Your task to perform on an android device: Open the music app Image 0: 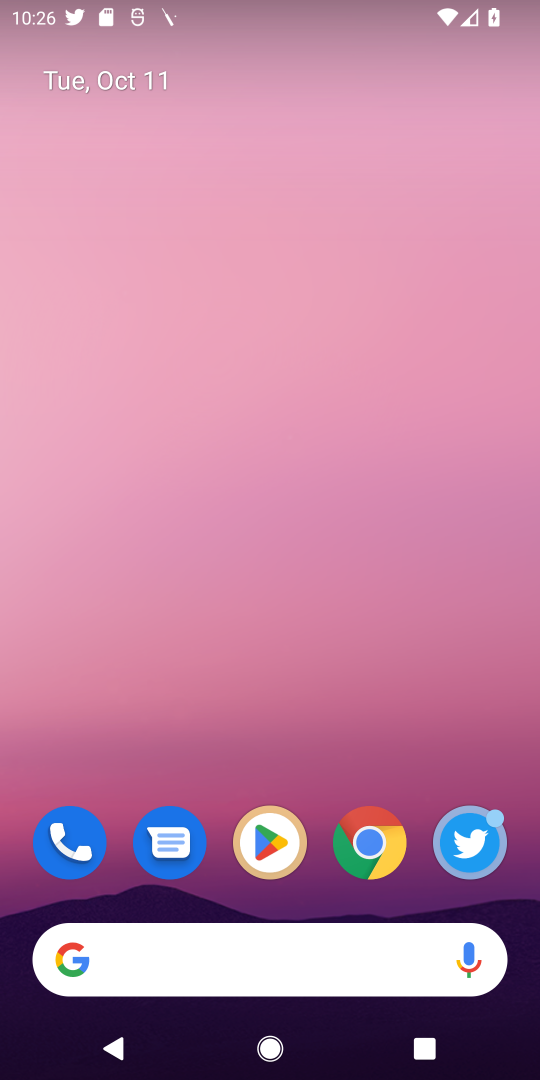
Step 0: click (362, 844)
Your task to perform on an android device: Open the music app Image 1: 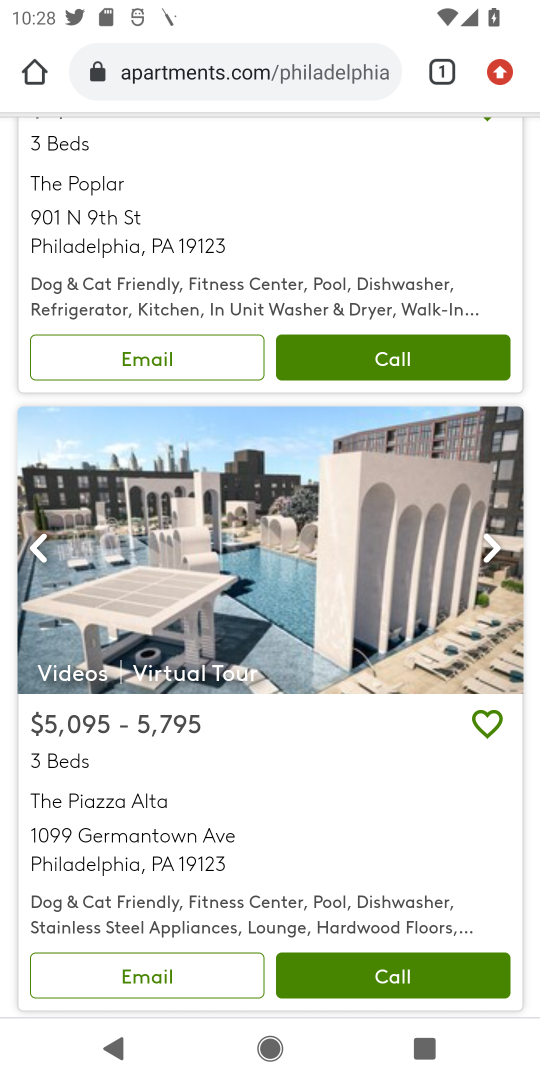
Step 1: drag from (328, 772) to (332, 394)
Your task to perform on an android device: Open the music app Image 2: 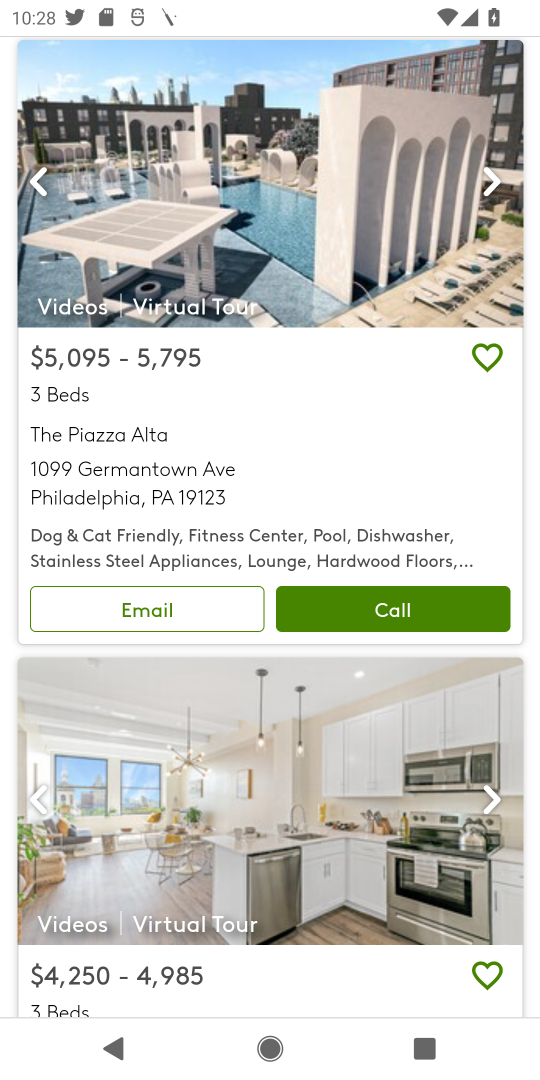
Step 2: drag from (273, 267) to (265, 982)
Your task to perform on an android device: Open the music app Image 3: 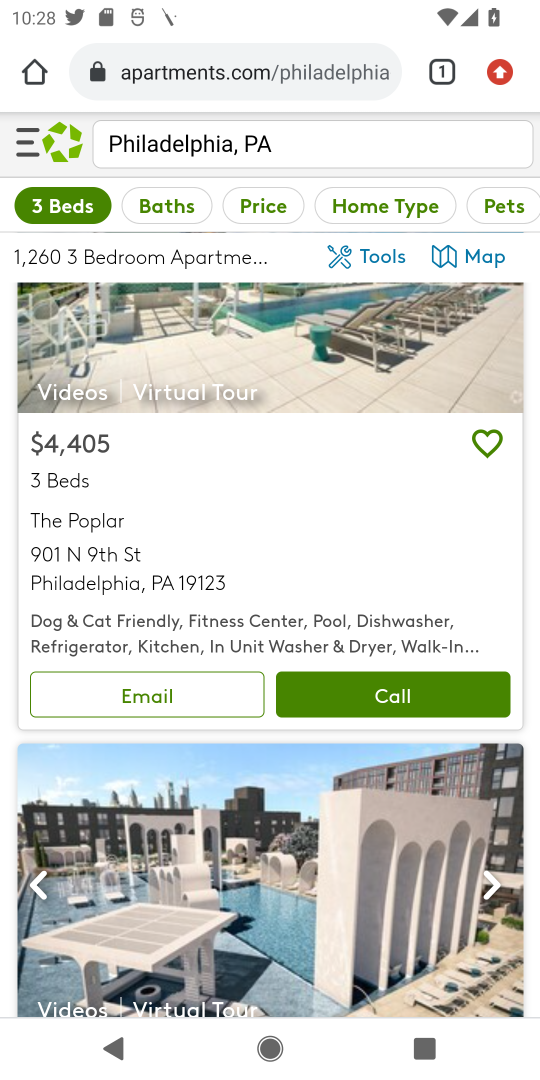
Step 3: press home button
Your task to perform on an android device: Open the music app Image 4: 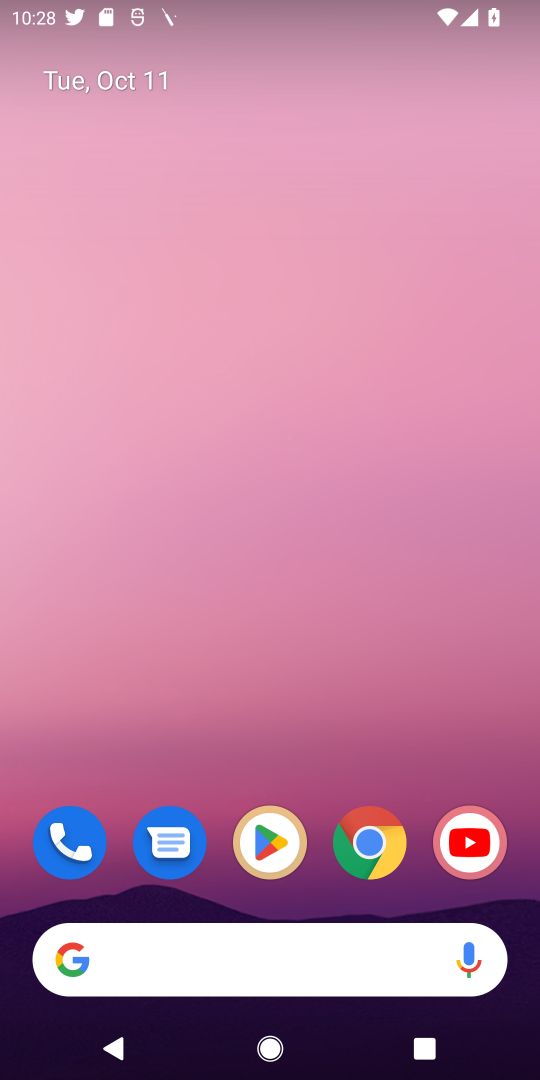
Step 4: drag from (311, 722) to (329, 235)
Your task to perform on an android device: Open the music app Image 5: 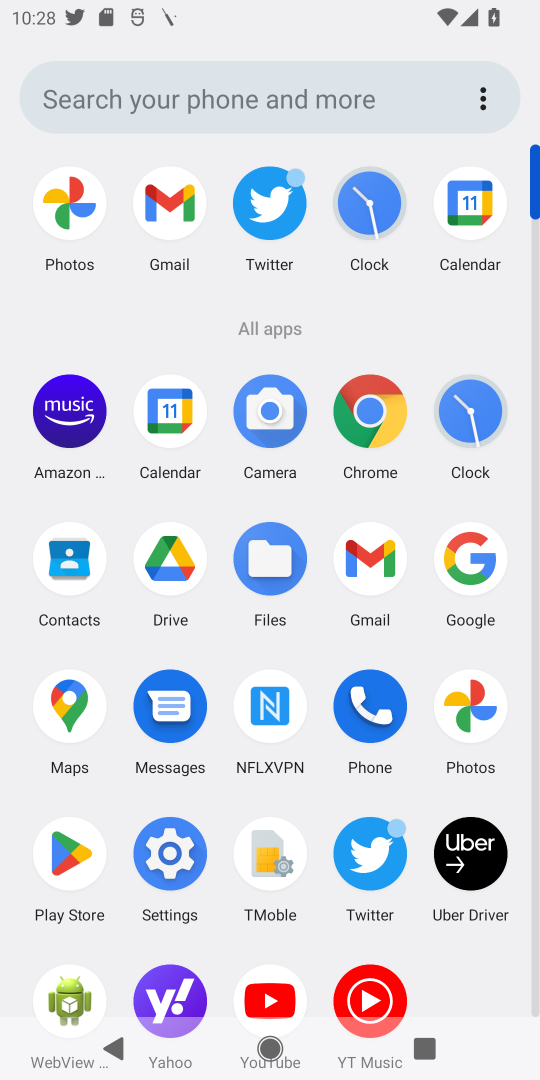
Step 5: drag from (209, 785) to (268, 326)
Your task to perform on an android device: Open the music app Image 6: 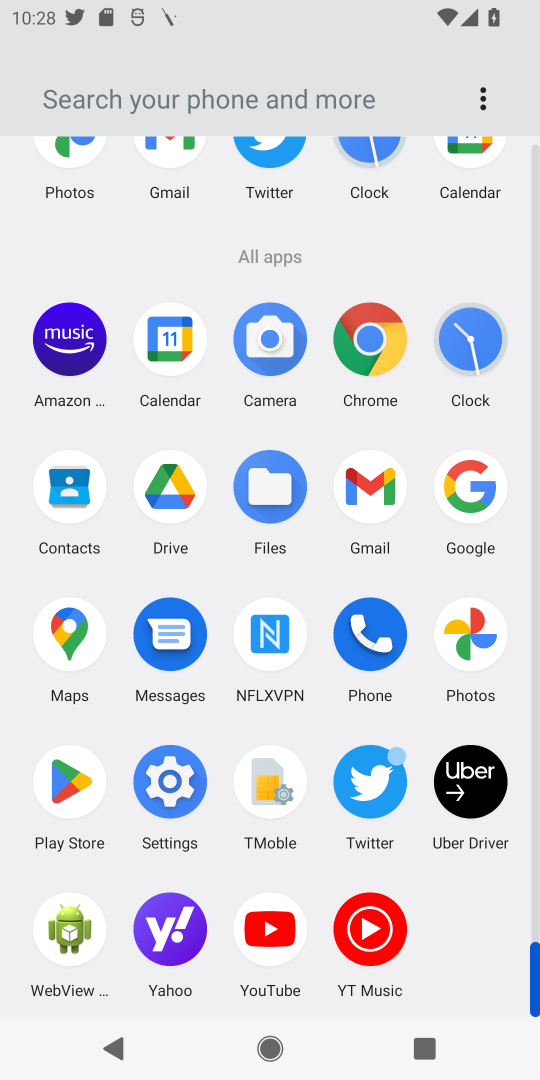
Step 6: click (69, 792)
Your task to perform on an android device: Open the music app Image 7: 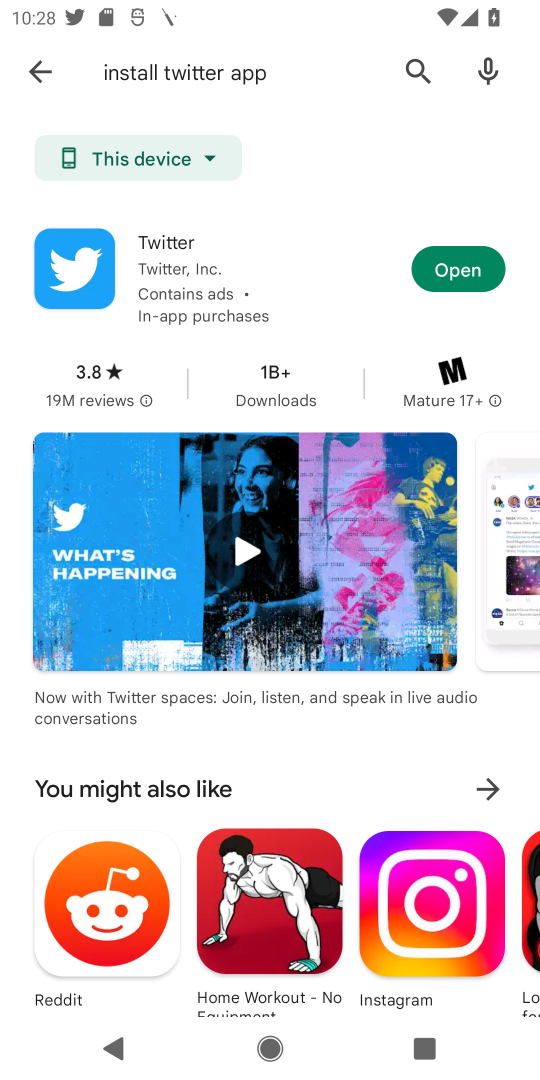
Step 7: click (243, 61)
Your task to perform on an android device: Open the music app Image 8: 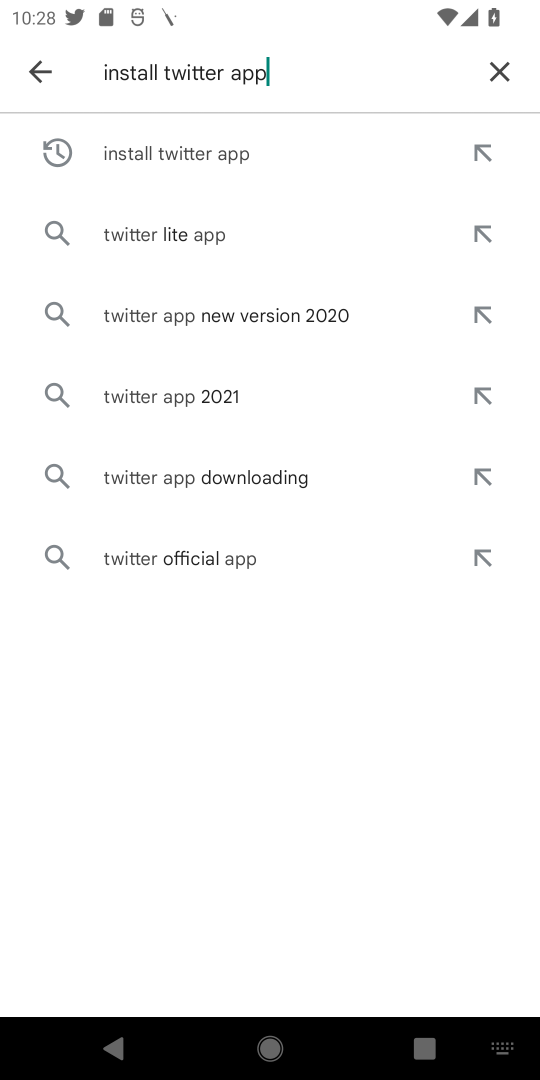
Step 8: click (501, 63)
Your task to perform on an android device: Open the music app Image 9: 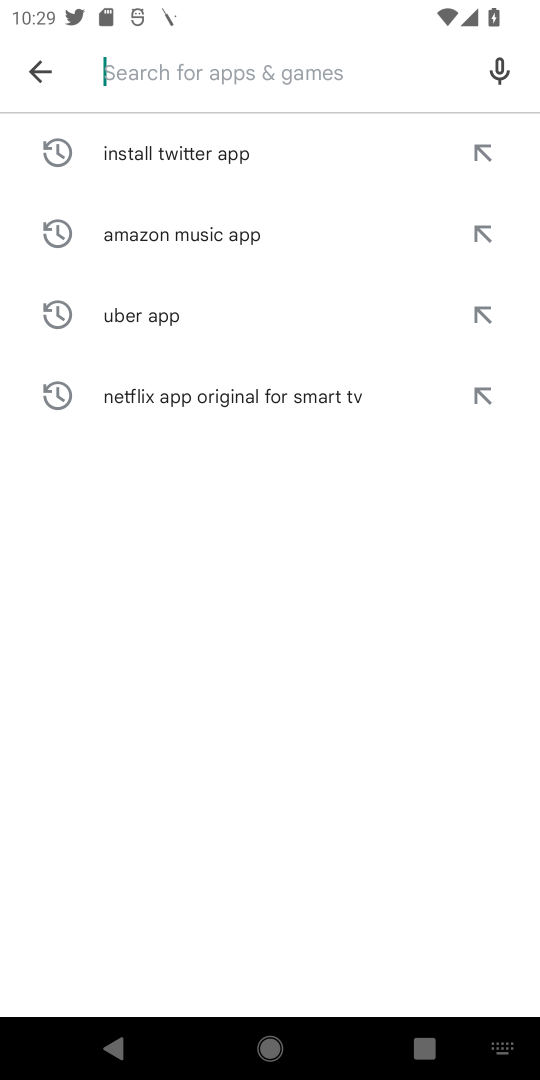
Step 9: type "music app"
Your task to perform on an android device: Open the music app Image 10: 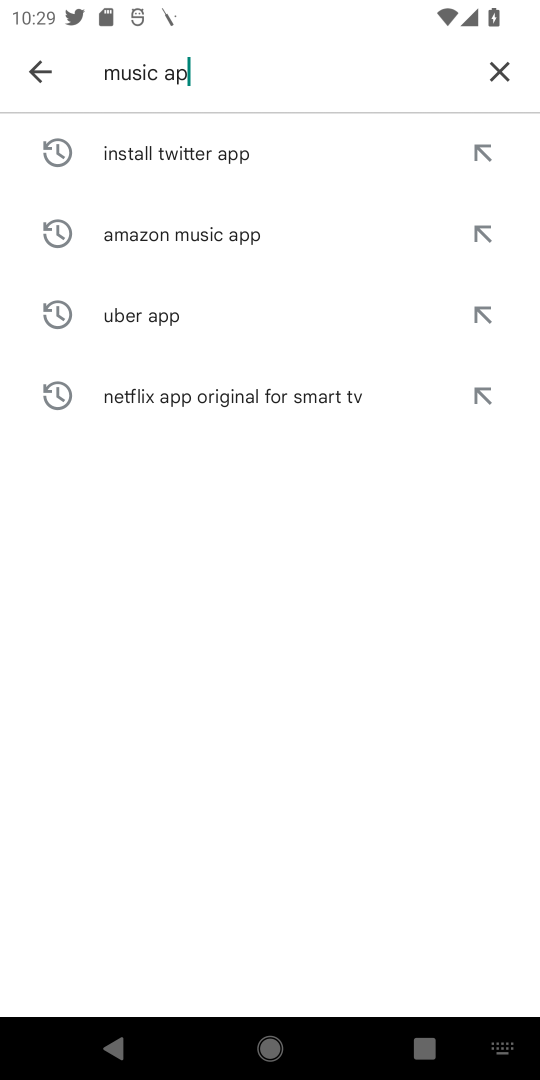
Step 10: type ""
Your task to perform on an android device: Open the music app Image 11: 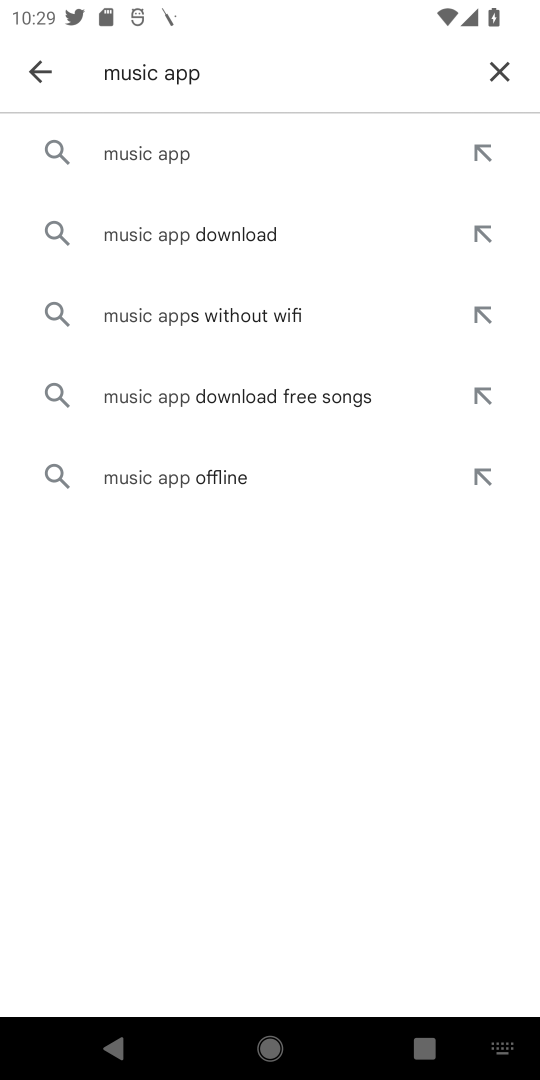
Step 11: click (168, 151)
Your task to perform on an android device: Open the music app Image 12: 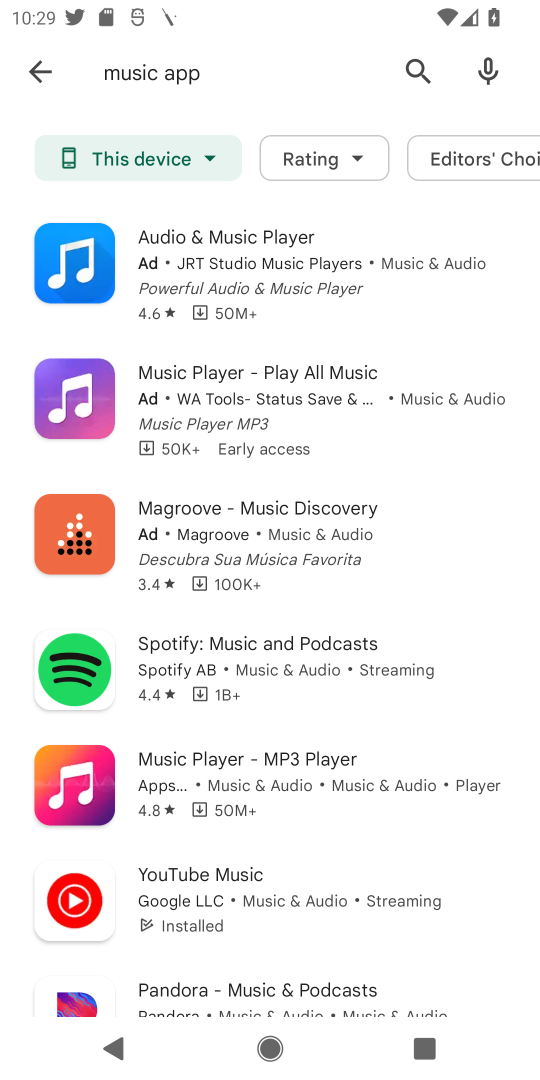
Step 12: click (173, 430)
Your task to perform on an android device: Open the music app Image 13: 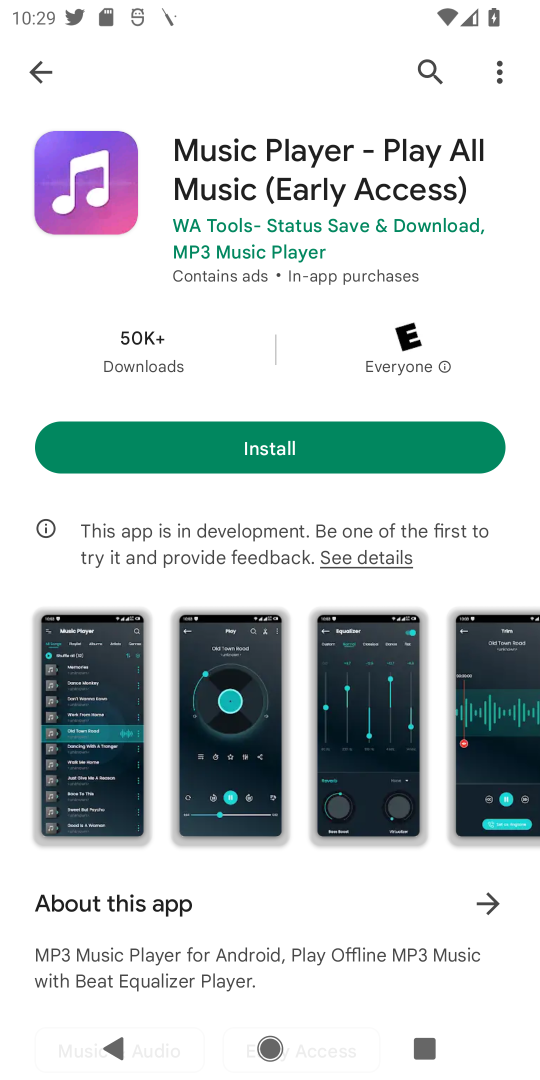
Step 13: click (292, 451)
Your task to perform on an android device: Open the music app Image 14: 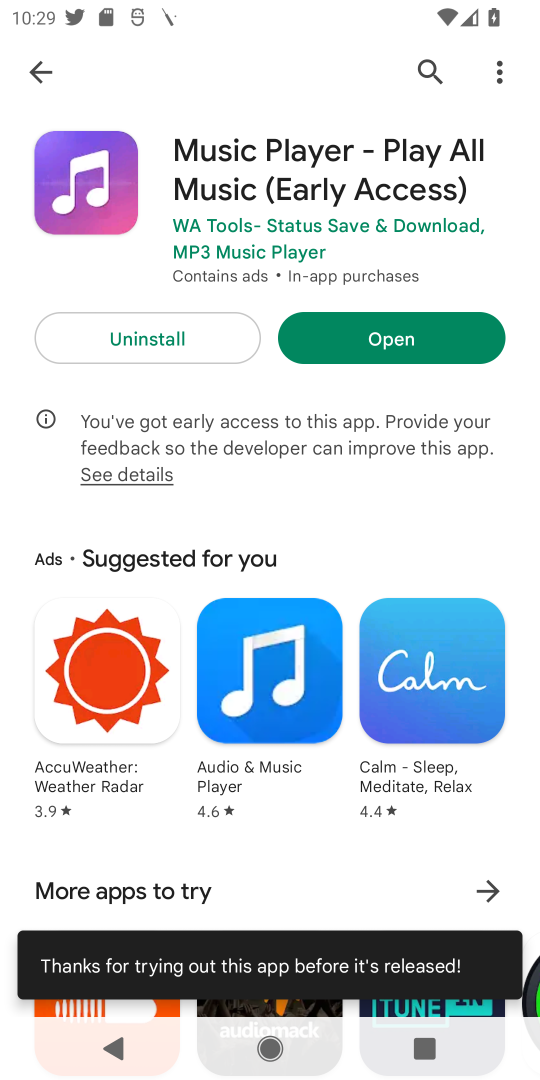
Step 14: click (370, 349)
Your task to perform on an android device: Open the music app Image 15: 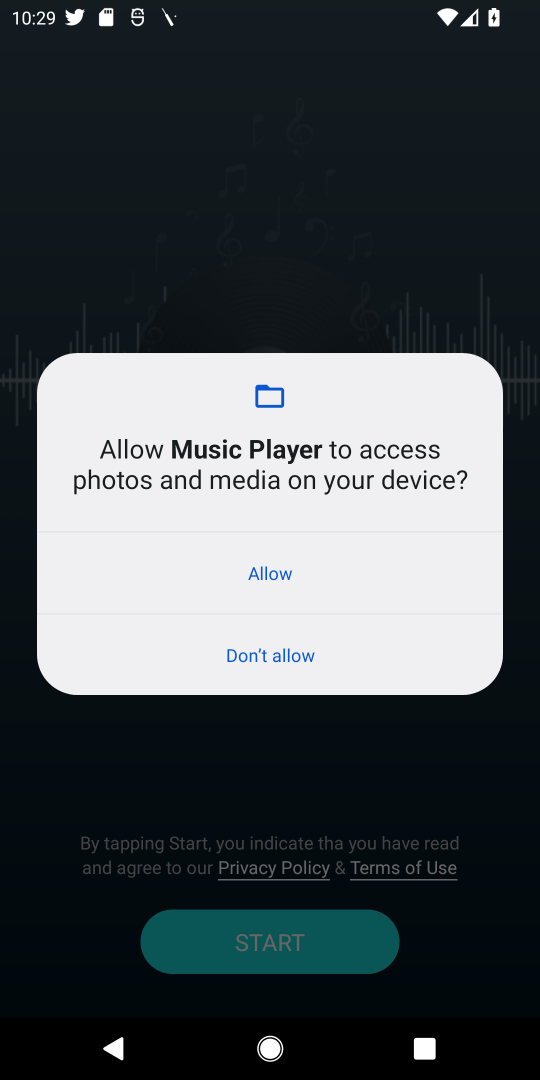
Step 15: click (282, 575)
Your task to perform on an android device: Open the music app Image 16: 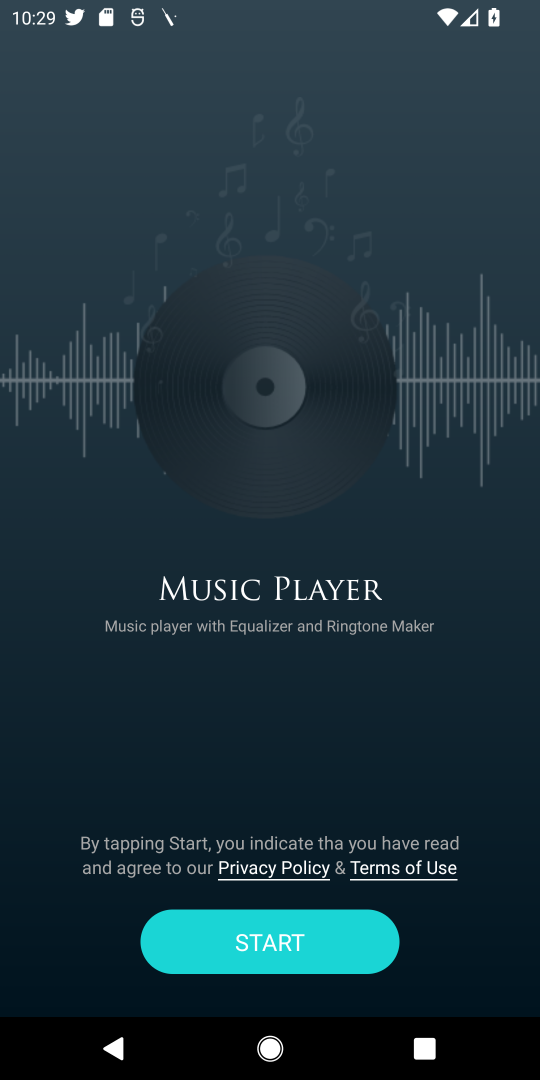
Step 16: click (264, 956)
Your task to perform on an android device: Open the music app Image 17: 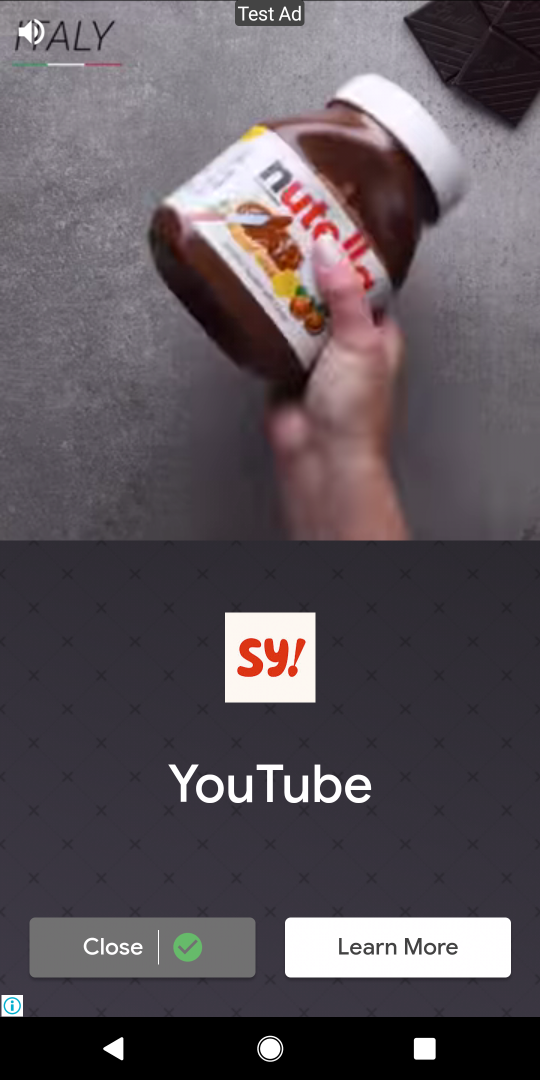
Step 17: click (149, 941)
Your task to perform on an android device: Open the music app Image 18: 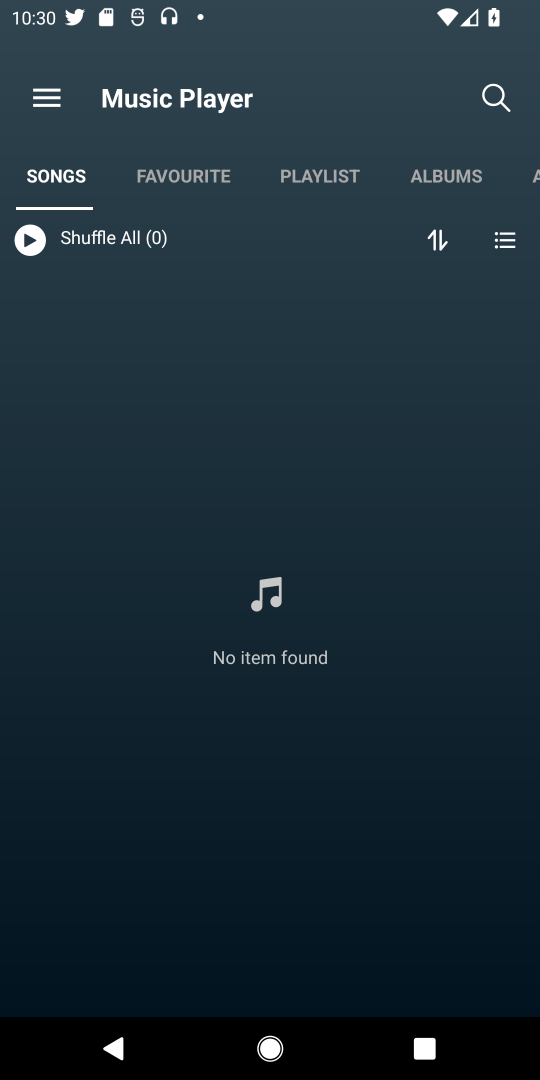
Step 18: task complete